Your task to perform on an android device: check data usage Image 0: 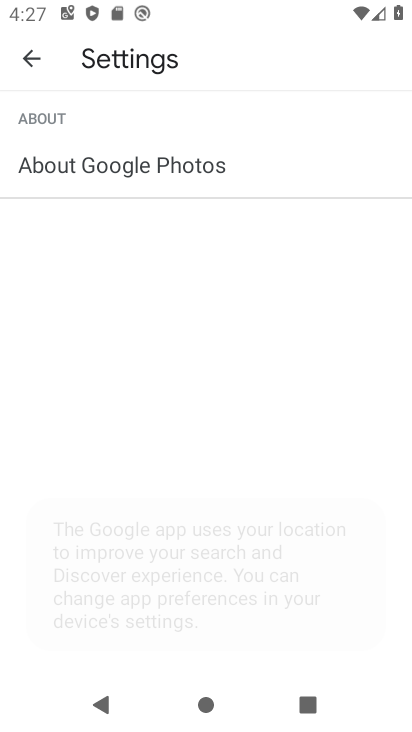
Step 0: press home button
Your task to perform on an android device: check data usage Image 1: 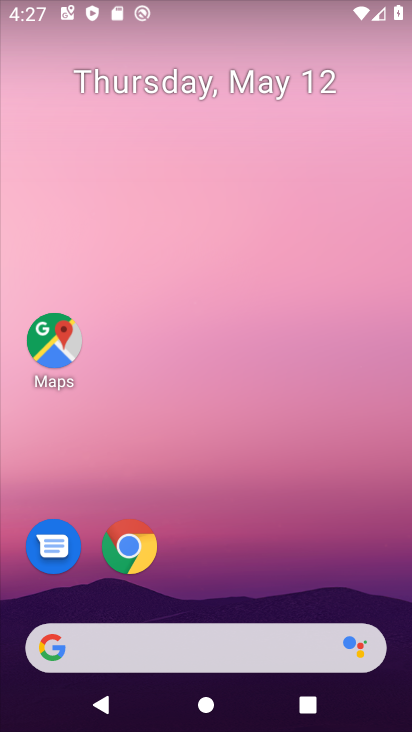
Step 1: drag from (142, 598) to (335, 64)
Your task to perform on an android device: check data usage Image 2: 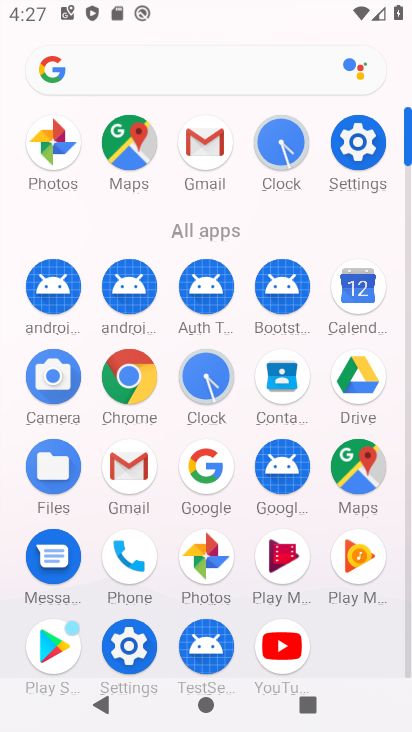
Step 2: click (111, 654)
Your task to perform on an android device: check data usage Image 3: 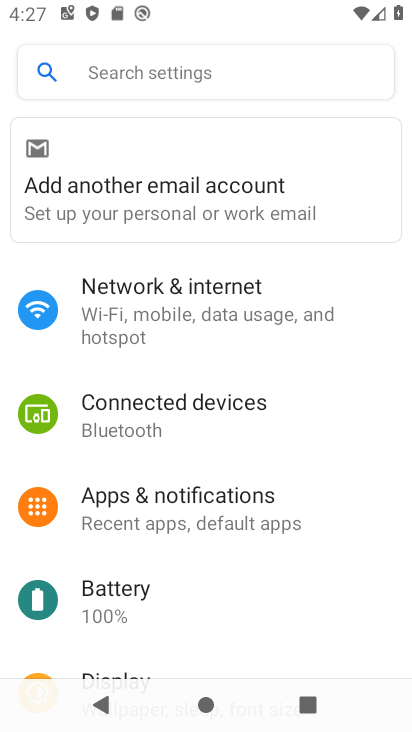
Step 3: click (215, 290)
Your task to perform on an android device: check data usage Image 4: 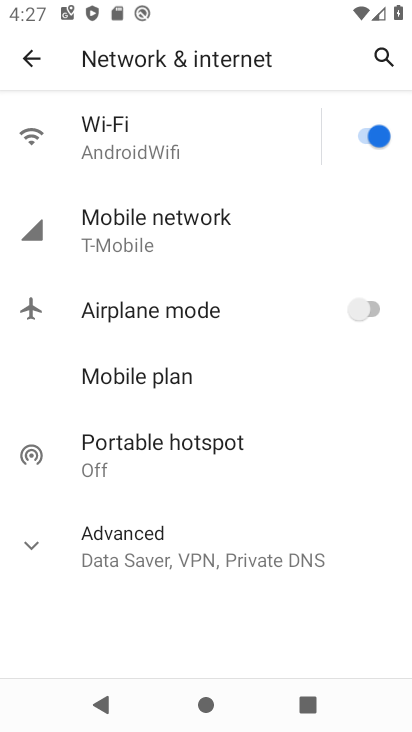
Step 4: click (206, 227)
Your task to perform on an android device: check data usage Image 5: 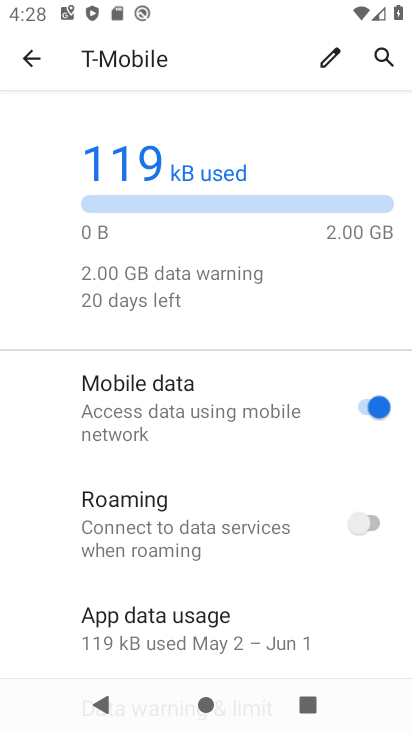
Step 5: click (199, 616)
Your task to perform on an android device: check data usage Image 6: 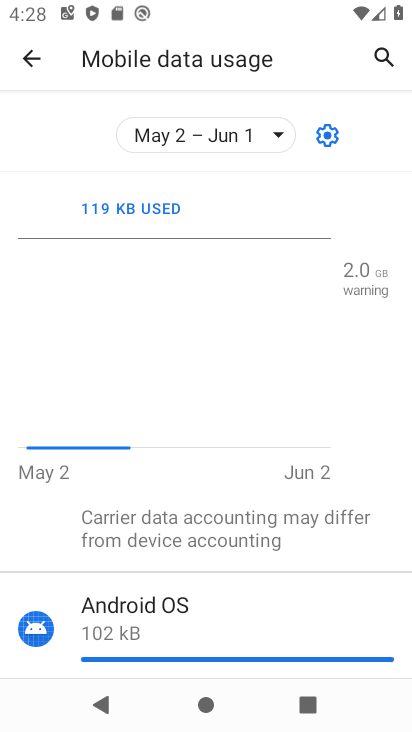
Step 6: task complete